Your task to perform on an android device: clear history in the chrome app Image 0: 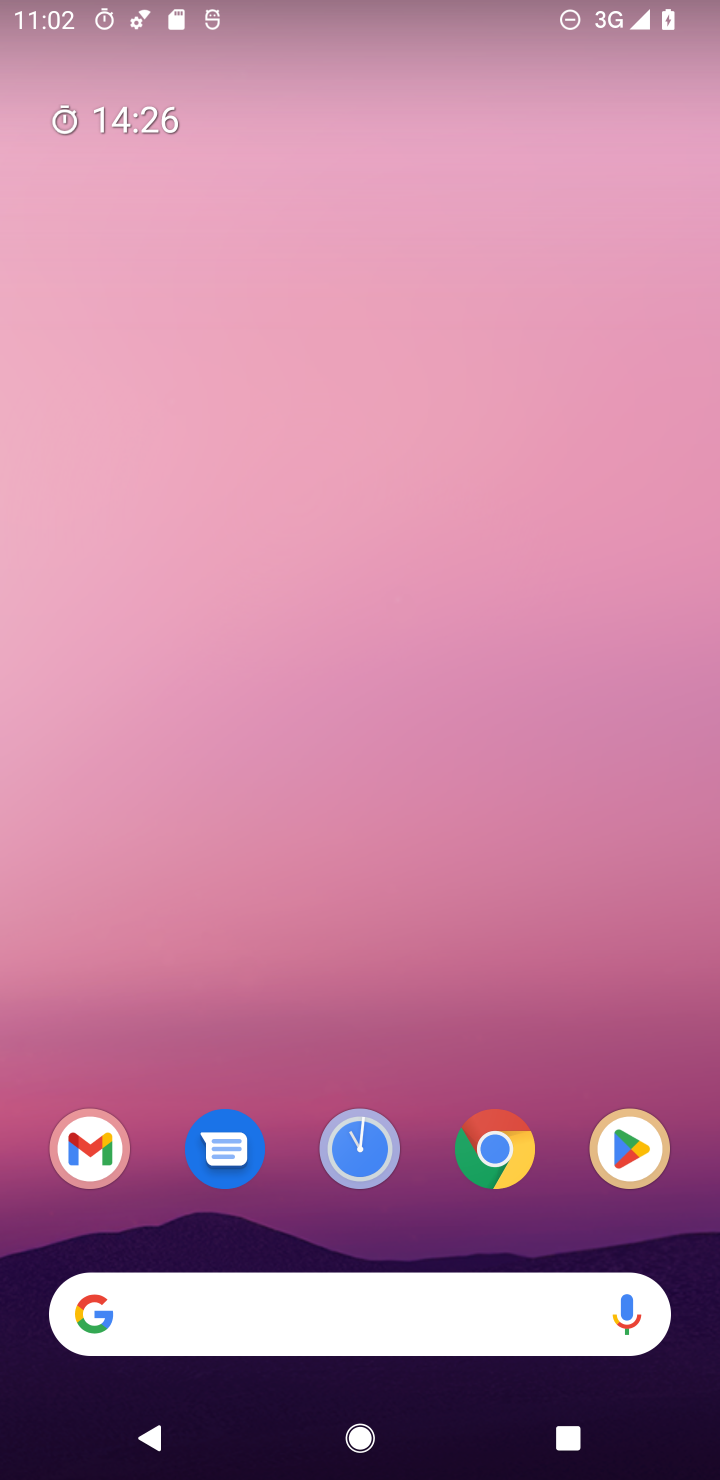
Step 0: click (492, 1158)
Your task to perform on an android device: clear history in the chrome app Image 1: 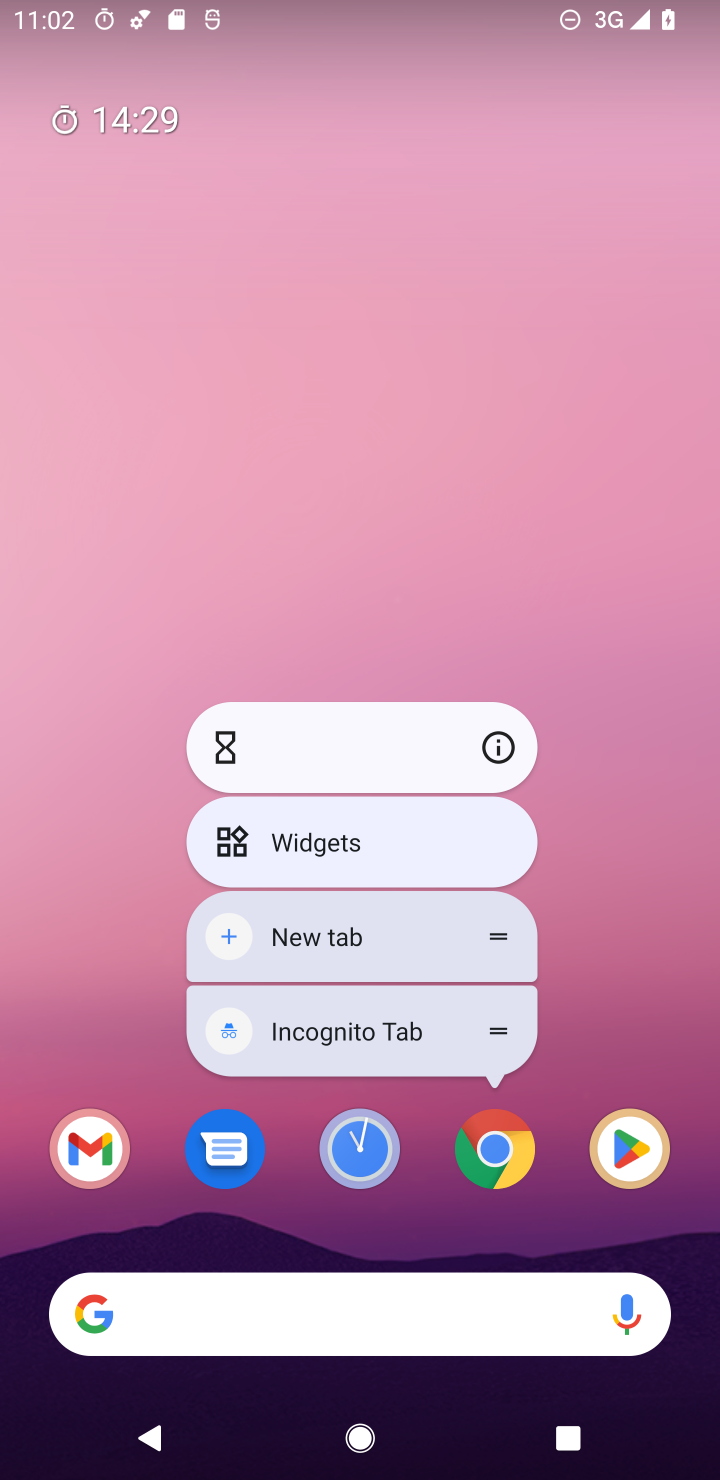
Step 1: click (527, 1147)
Your task to perform on an android device: clear history in the chrome app Image 2: 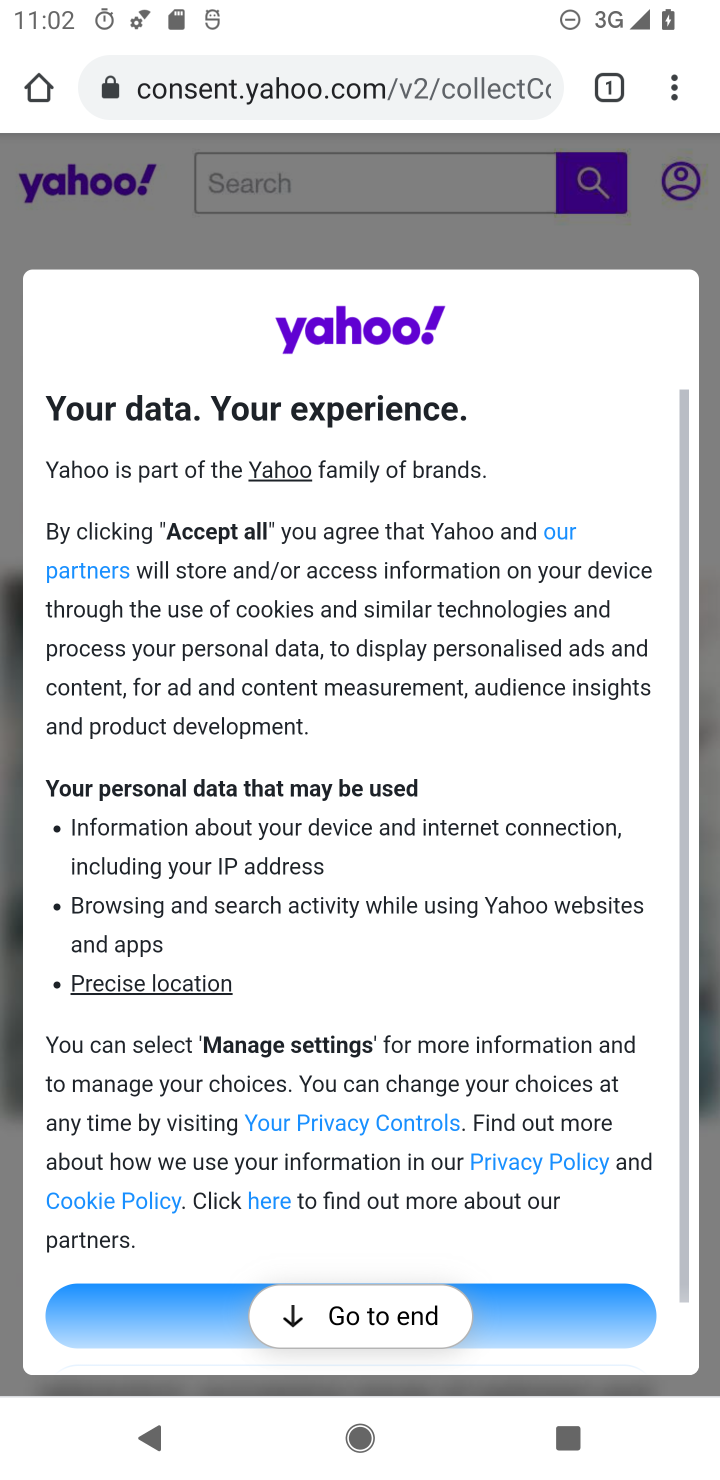
Step 2: click (669, 86)
Your task to perform on an android device: clear history in the chrome app Image 3: 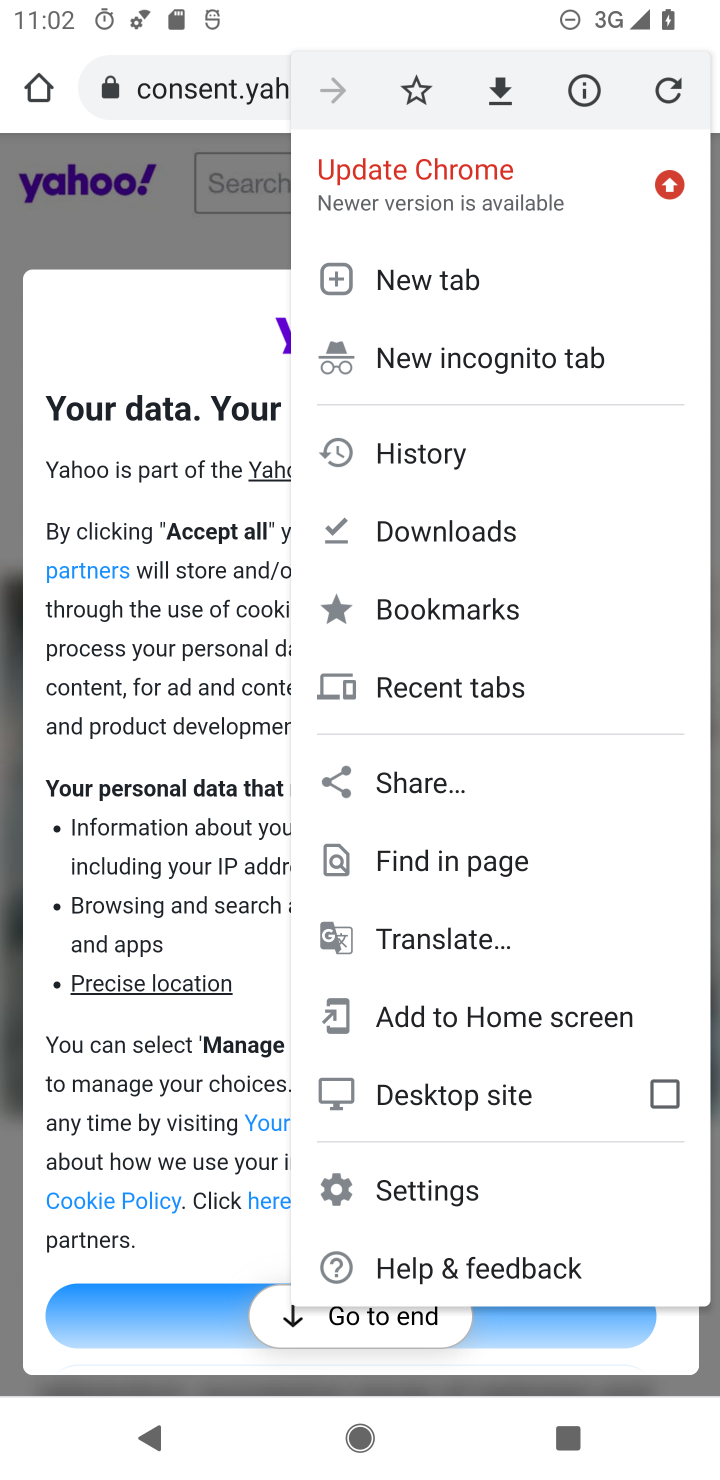
Step 3: click (441, 450)
Your task to perform on an android device: clear history in the chrome app Image 4: 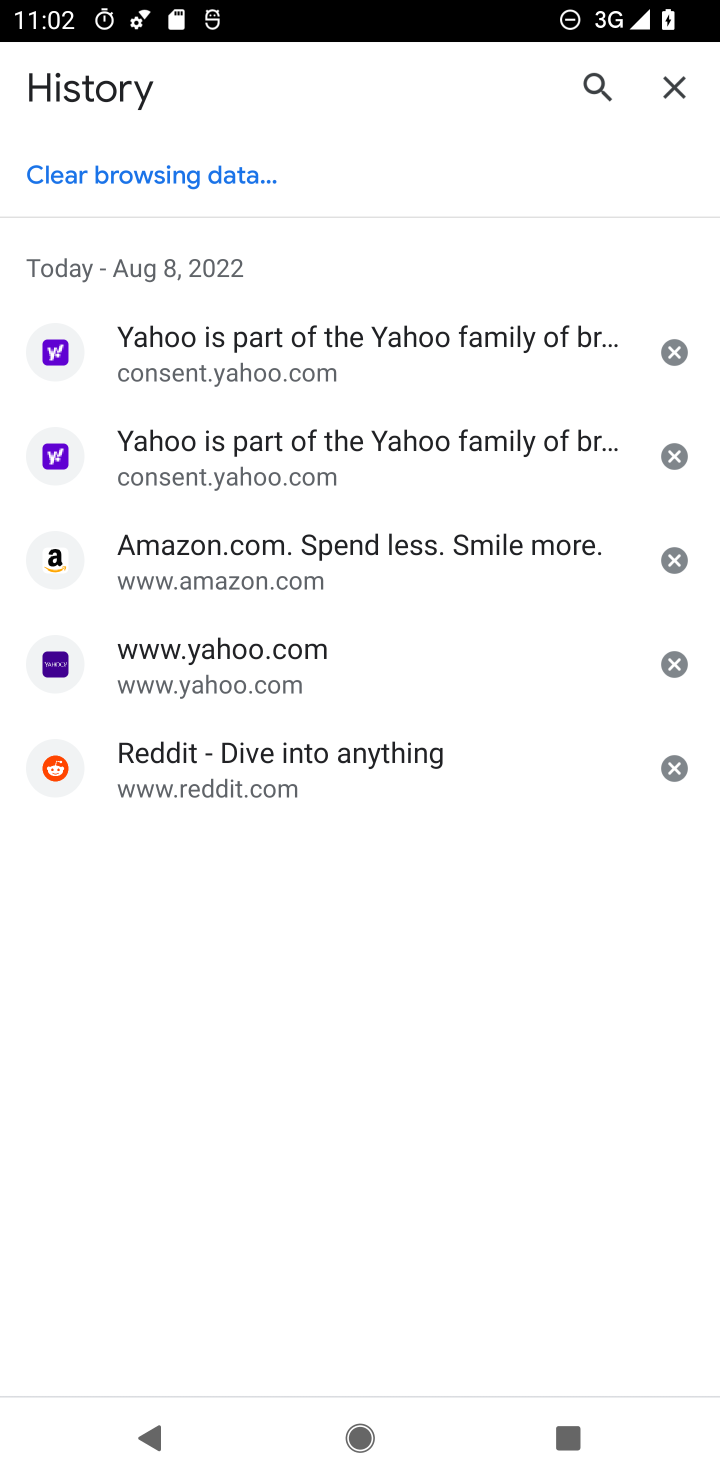
Step 4: click (156, 168)
Your task to perform on an android device: clear history in the chrome app Image 5: 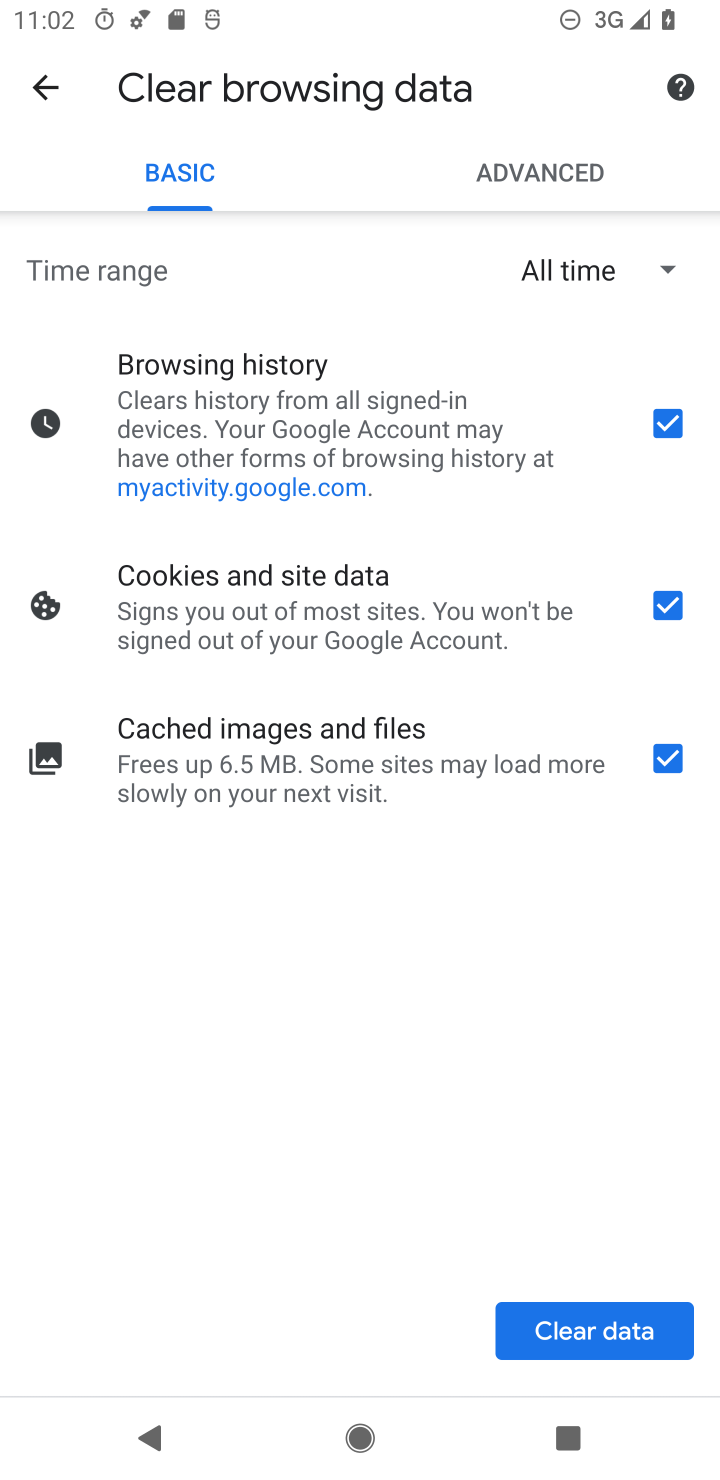
Step 5: click (640, 1340)
Your task to perform on an android device: clear history in the chrome app Image 6: 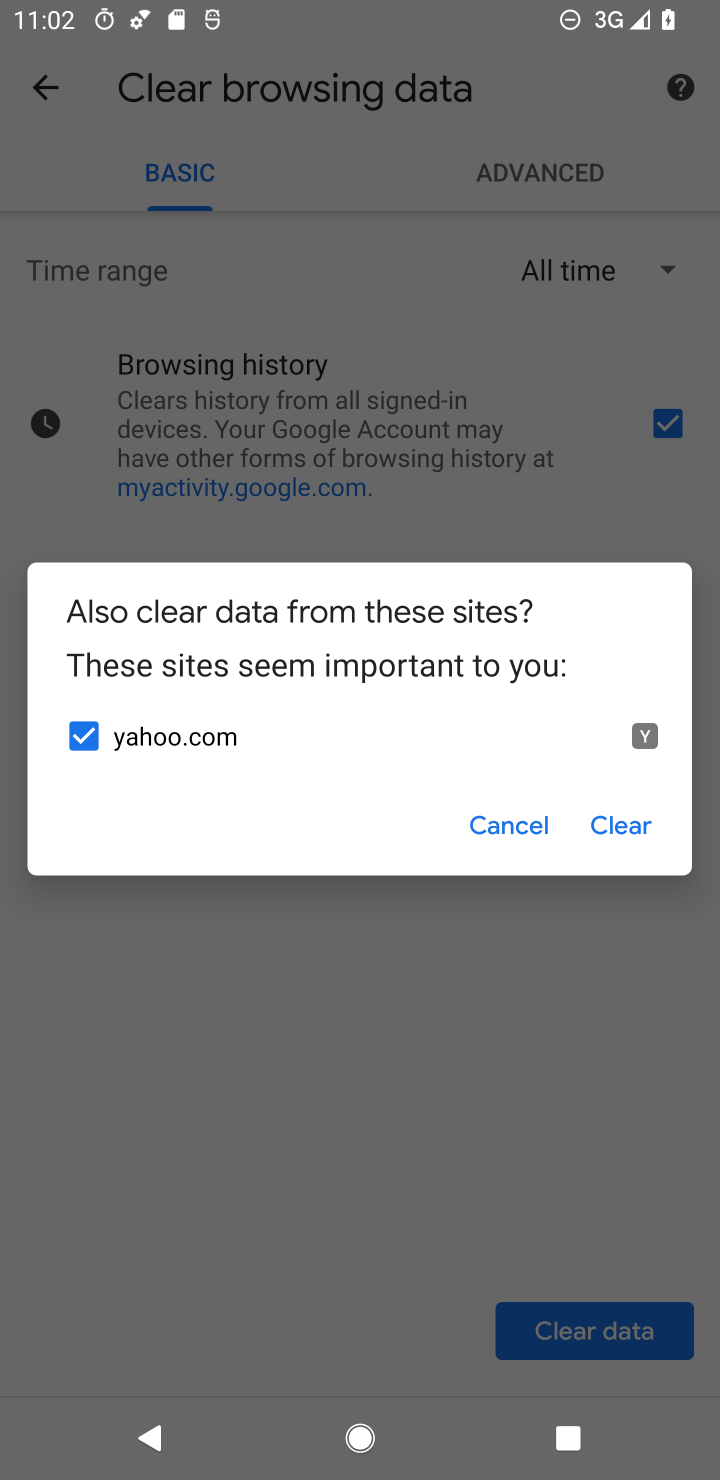
Step 6: click (627, 828)
Your task to perform on an android device: clear history in the chrome app Image 7: 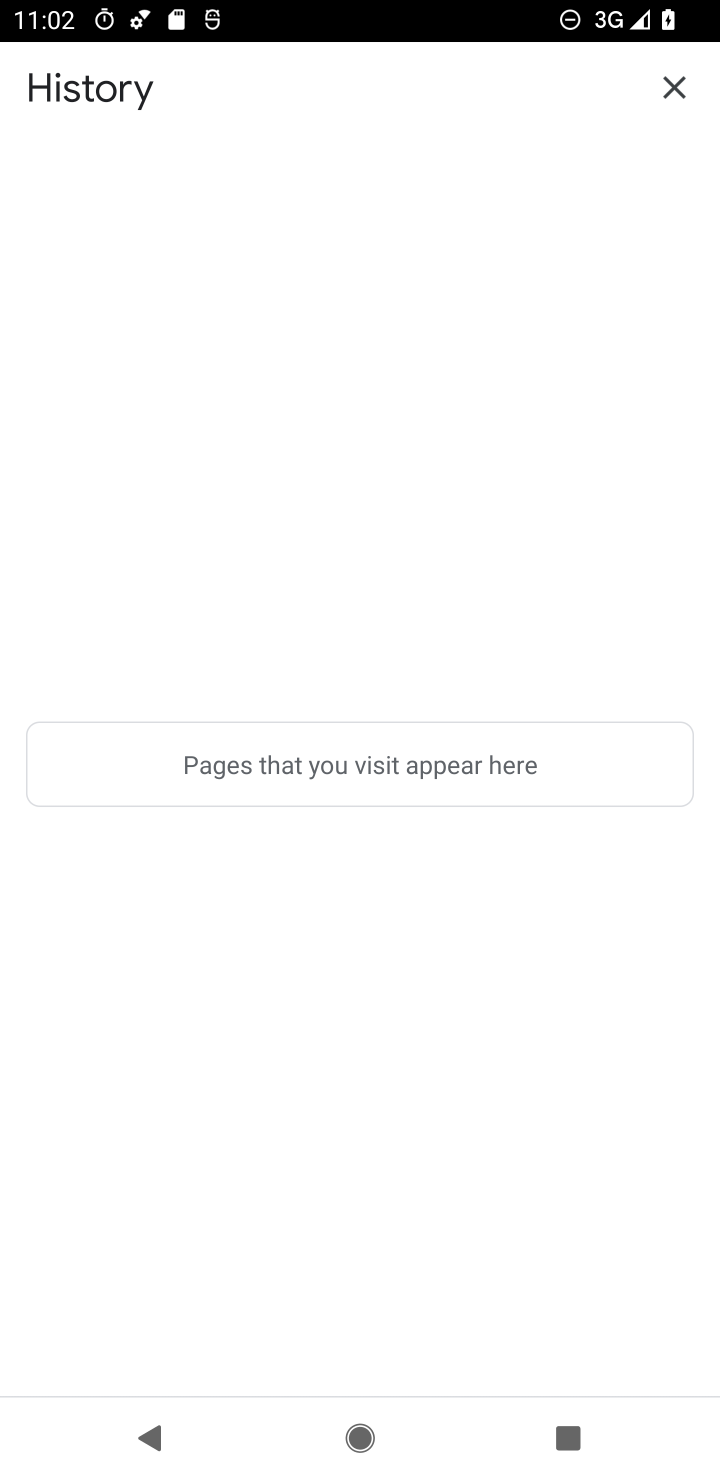
Step 7: task complete